Your task to perform on an android device: add a label to a message in the gmail app Image 0: 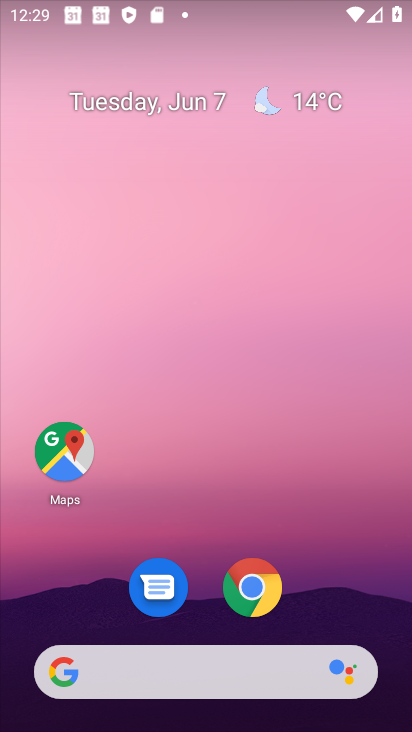
Step 0: drag from (259, 691) to (313, 73)
Your task to perform on an android device: add a label to a message in the gmail app Image 1: 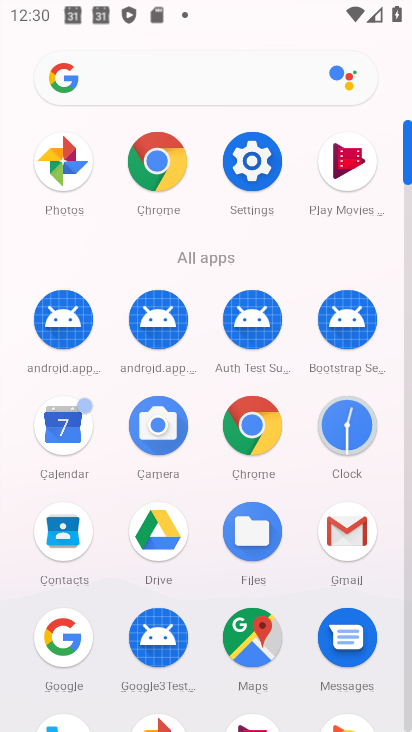
Step 1: click (354, 534)
Your task to perform on an android device: add a label to a message in the gmail app Image 2: 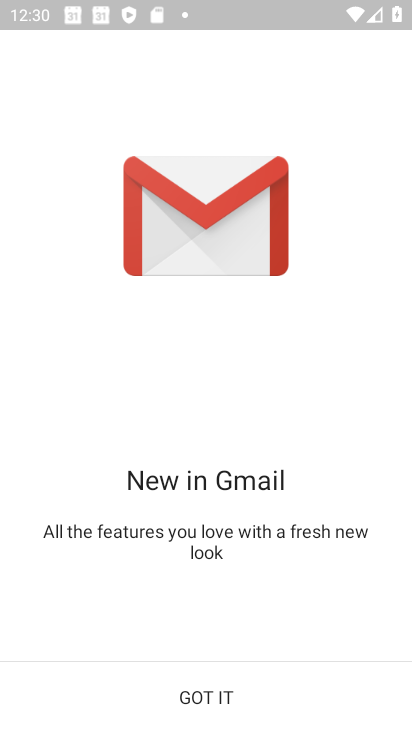
Step 2: click (225, 684)
Your task to perform on an android device: add a label to a message in the gmail app Image 3: 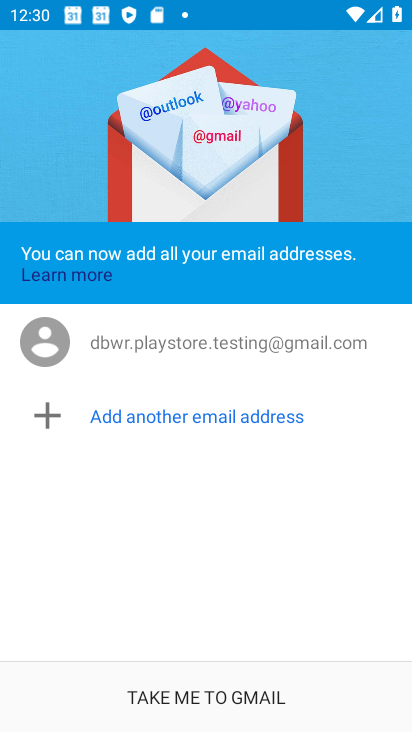
Step 3: click (236, 694)
Your task to perform on an android device: add a label to a message in the gmail app Image 4: 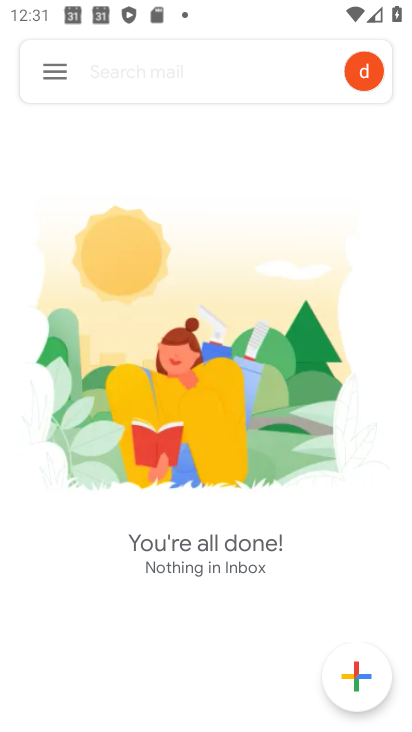
Step 4: click (65, 79)
Your task to perform on an android device: add a label to a message in the gmail app Image 5: 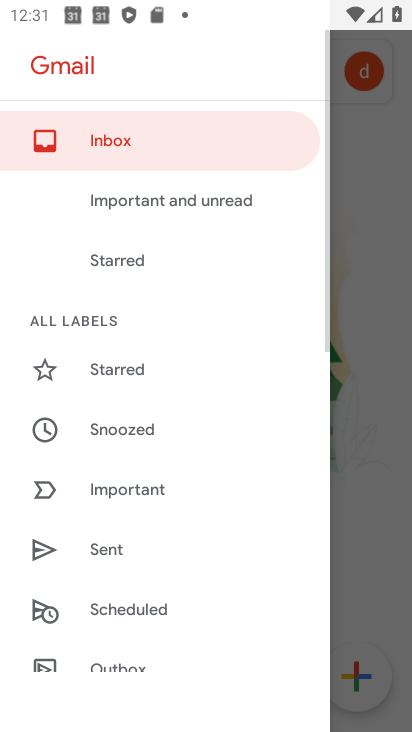
Step 5: drag from (118, 522) to (188, 187)
Your task to perform on an android device: add a label to a message in the gmail app Image 6: 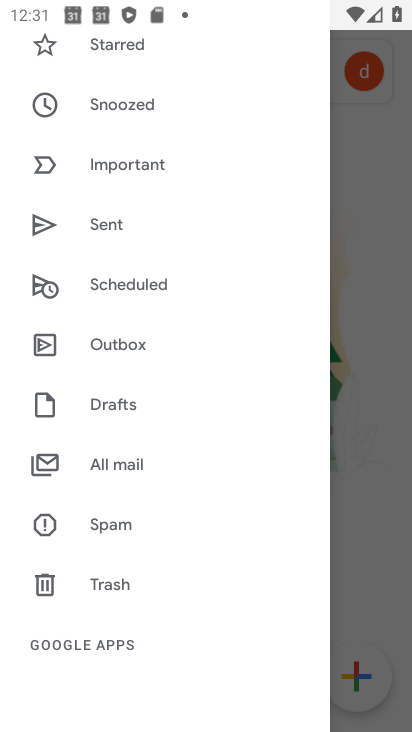
Step 6: click (139, 470)
Your task to perform on an android device: add a label to a message in the gmail app Image 7: 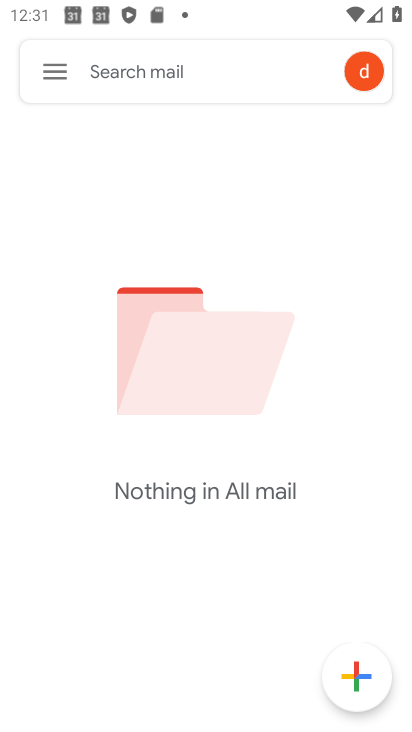
Step 7: task complete